Your task to perform on an android device: open app "Spotify: Music and Podcasts" (install if not already installed), go to login, and select forgot password Image 0: 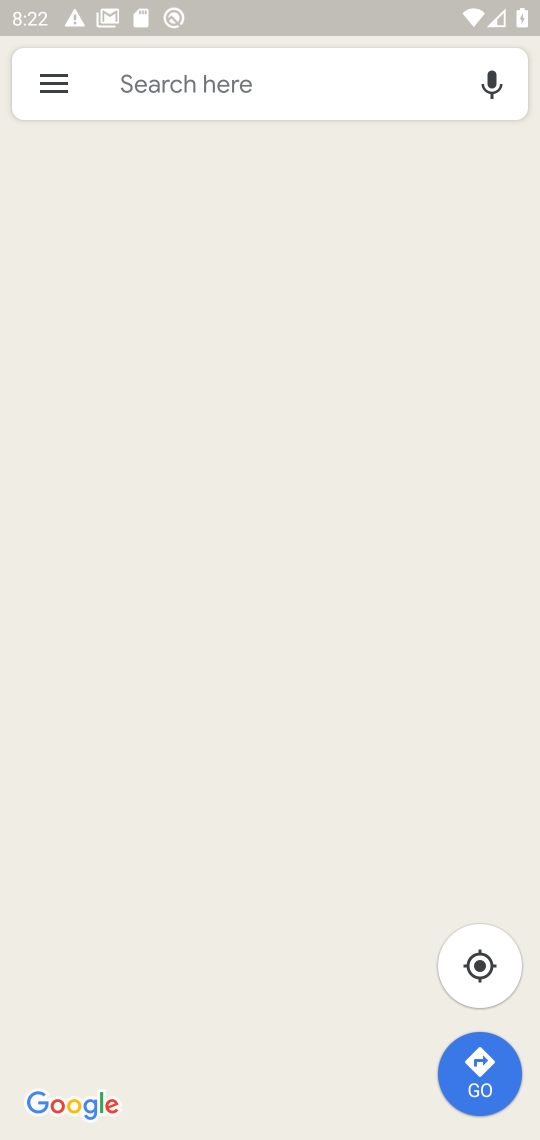
Step 0: press home button
Your task to perform on an android device: open app "Spotify: Music and Podcasts" (install if not already installed), go to login, and select forgot password Image 1: 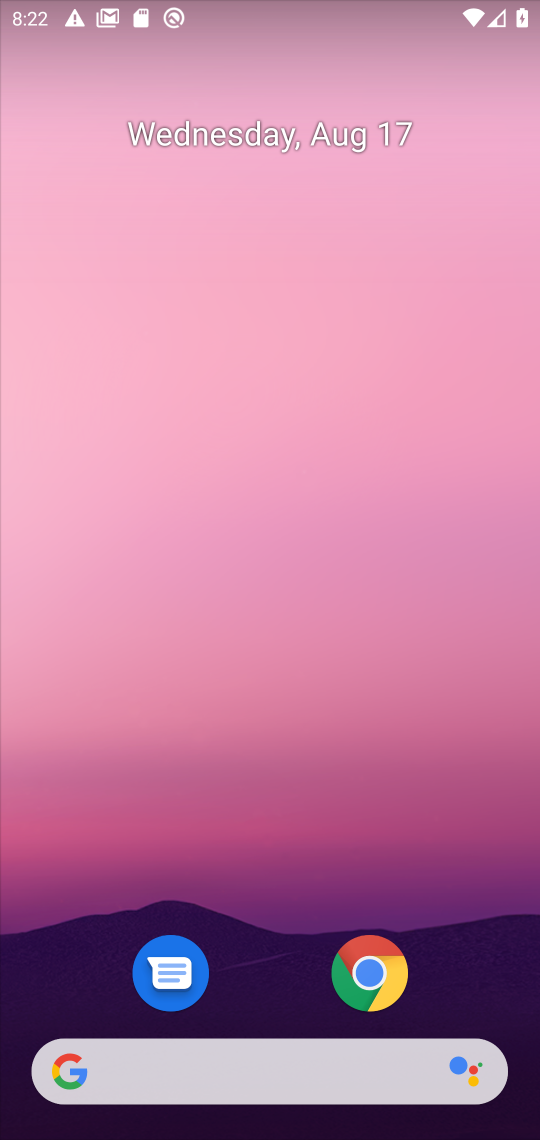
Step 1: click (308, 686)
Your task to perform on an android device: open app "Spotify: Music and Podcasts" (install if not already installed), go to login, and select forgot password Image 2: 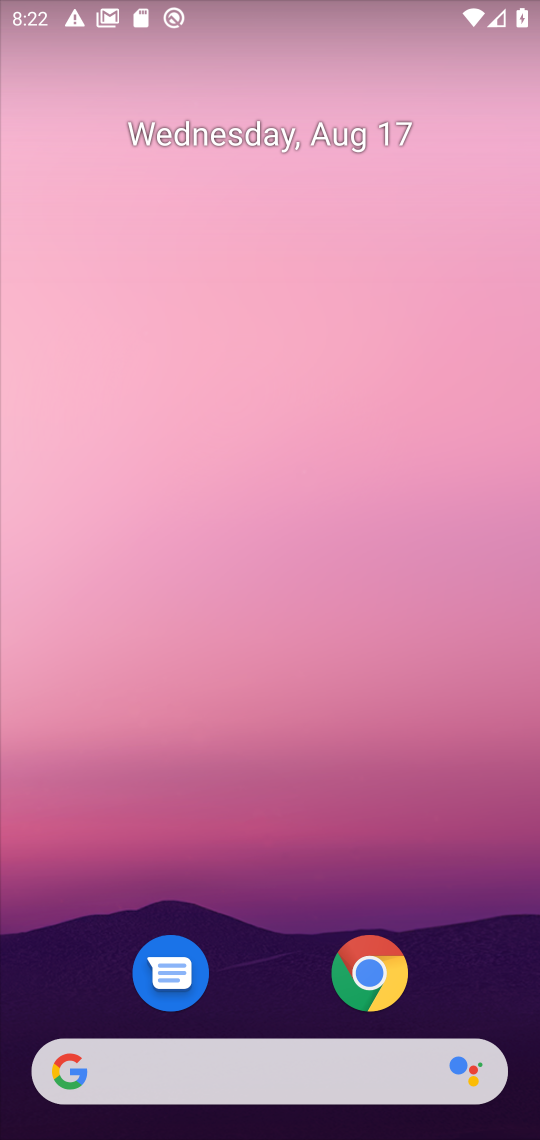
Step 2: drag from (295, 986) to (380, 115)
Your task to perform on an android device: open app "Spotify: Music and Podcasts" (install if not already installed), go to login, and select forgot password Image 3: 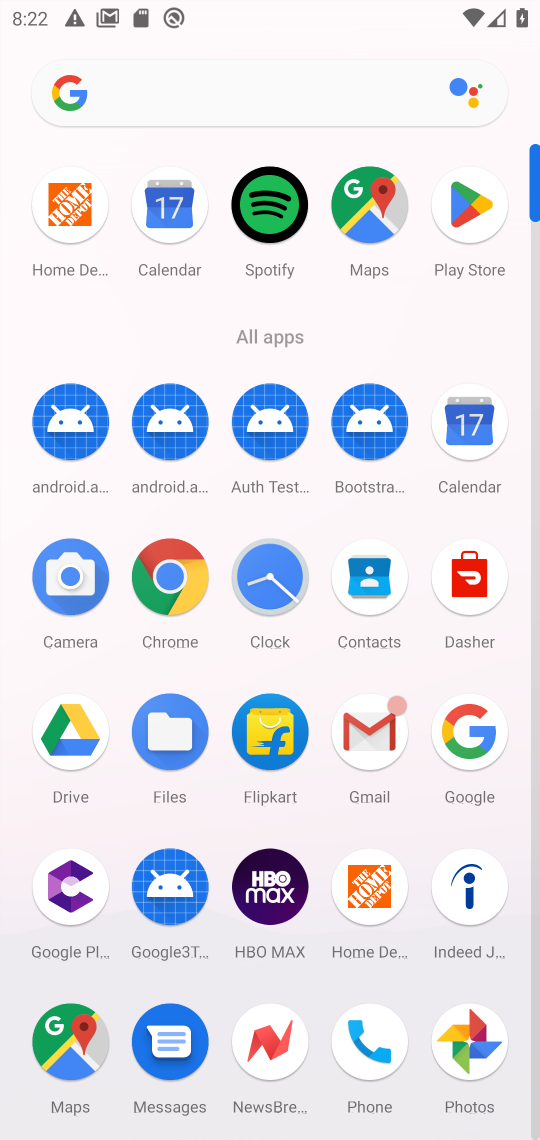
Step 3: click (459, 208)
Your task to perform on an android device: open app "Spotify: Music and Podcasts" (install if not already installed), go to login, and select forgot password Image 4: 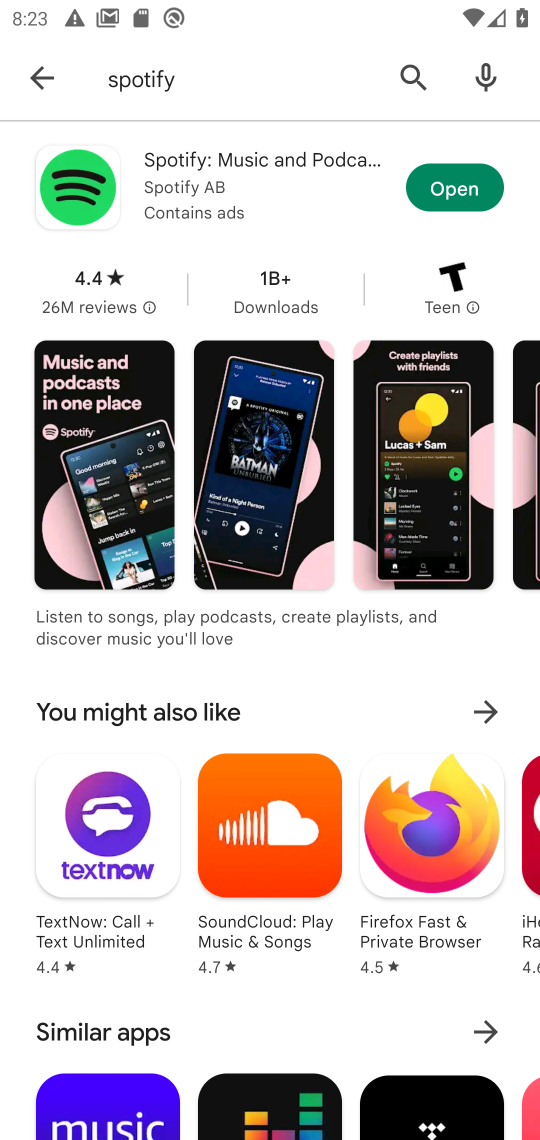
Step 4: click (459, 209)
Your task to perform on an android device: open app "Spotify: Music and Podcasts" (install if not already installed), go to login, and select forgot password Image 5: 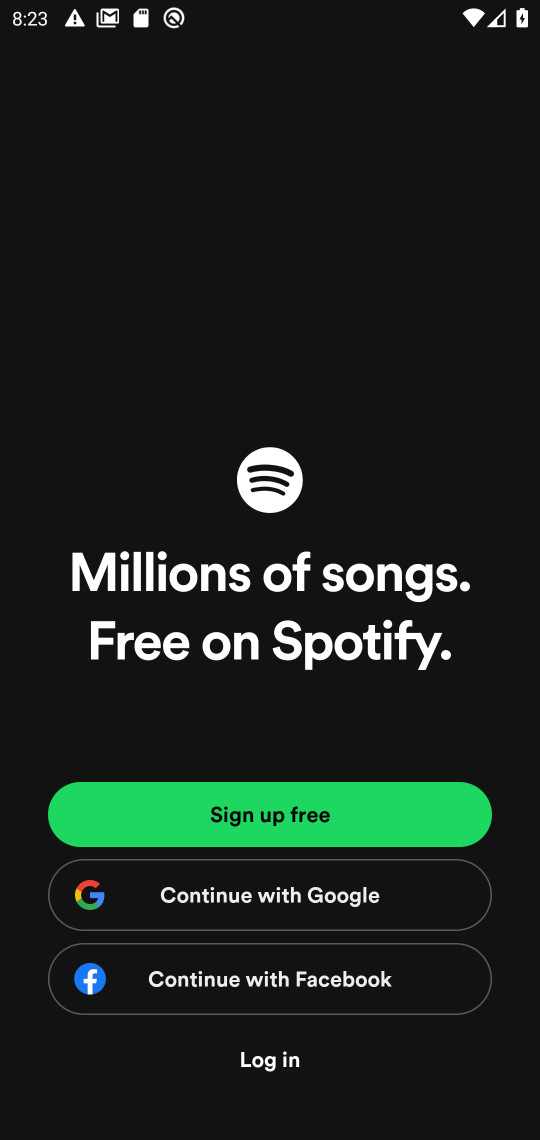
Step 5: task complete